Your task to perform on an android device: set the timer Image 0: 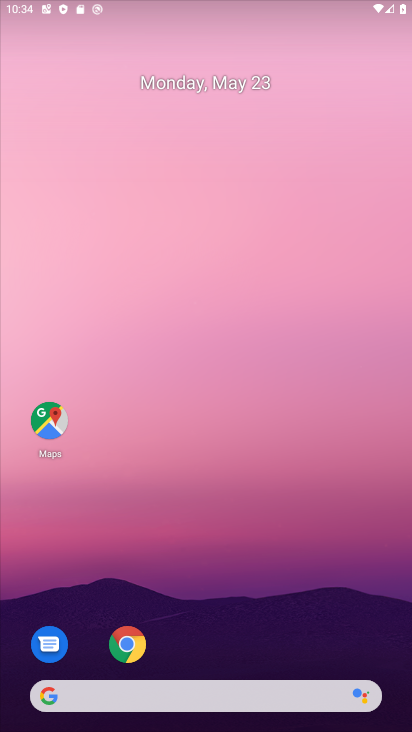
Step 0: press home button
Your task to perform on an android device: set the timer Image 1: 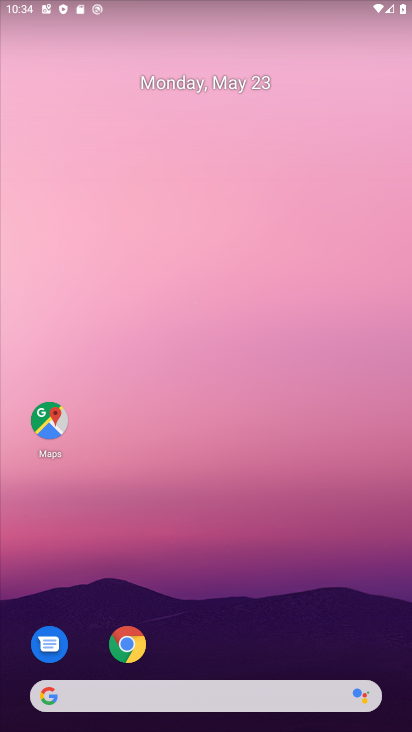
Step 1: drag from (292, 663) to (205, 13)
Your task to perform on an android device: set the timer Image 2: 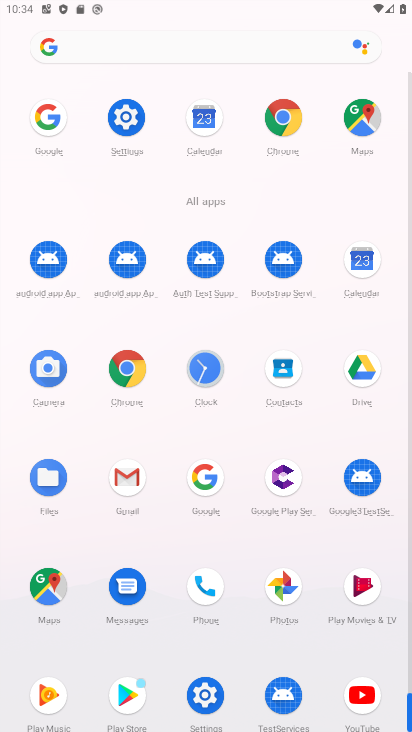
Step 2: click (127, 482)
Your task to perform on an android device: set the timer Image 3: 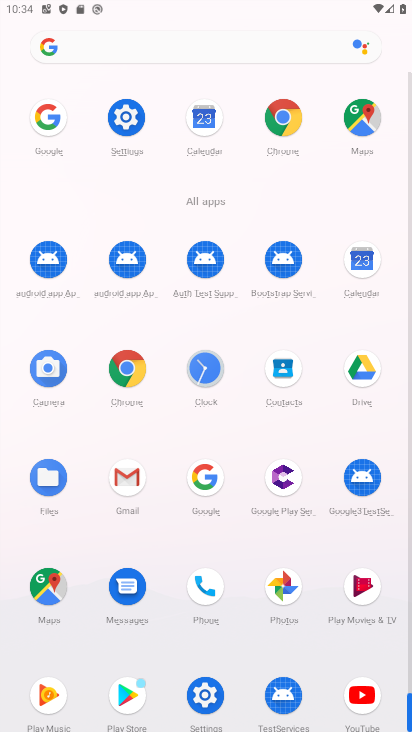
Step 3: click (122, 478)
Your task to perform on an android device: set the timer Image 4: 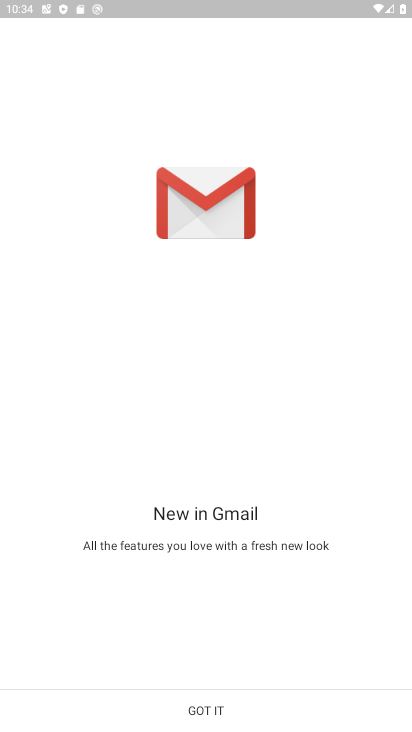
Step 4: click (243, 709)
Your task to perform on an android device: set the timer Image 5: 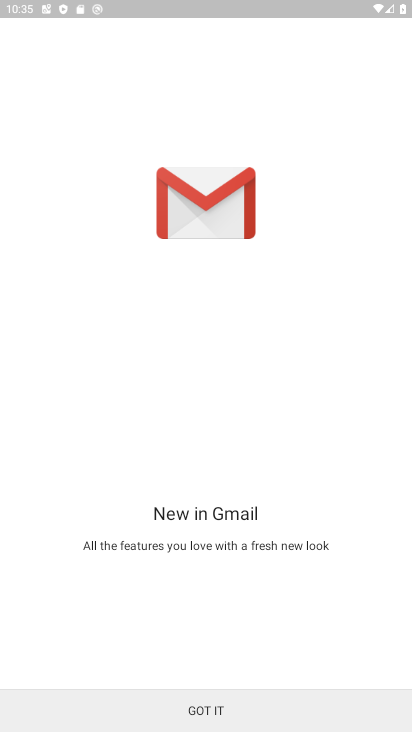
Step 5: click (251, 708)
Your task to perform on an android device: set the timer Image 6: 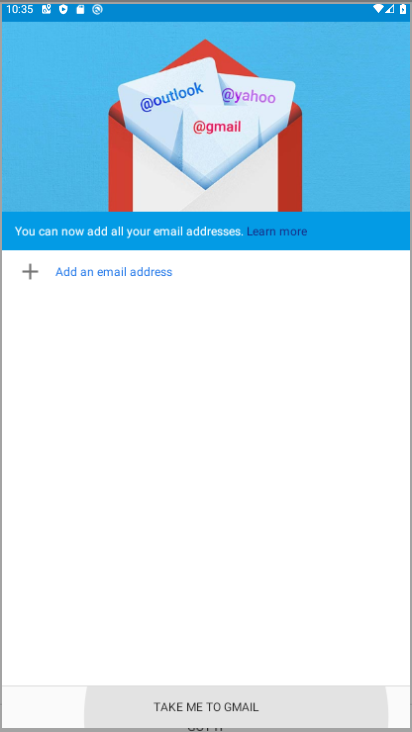
Step 6: click (252, 708)
Your task to perform on an android device: set the timer Image 7: 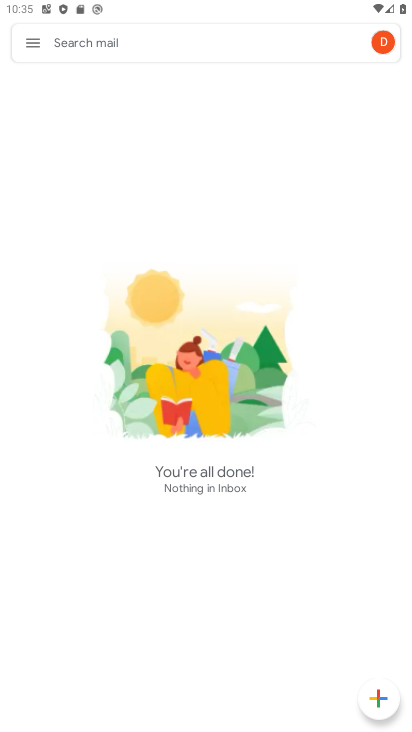
Step 7: click (32, 43)
Your task to perform on an android device: set the timer Image 8: 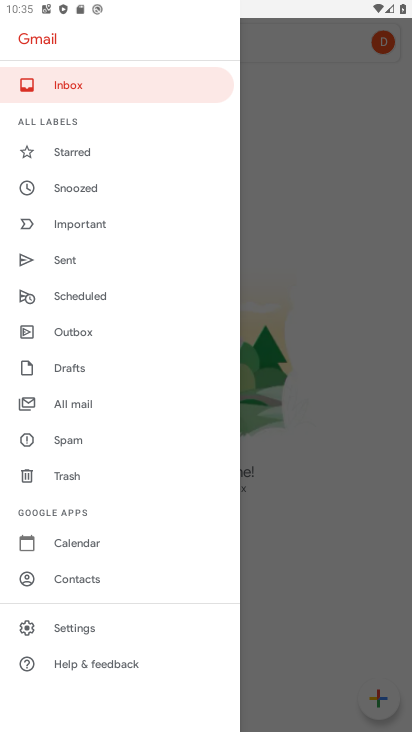
Step 8: click (76, 405)
Your task to perform on an android device: set the timer Image 9: 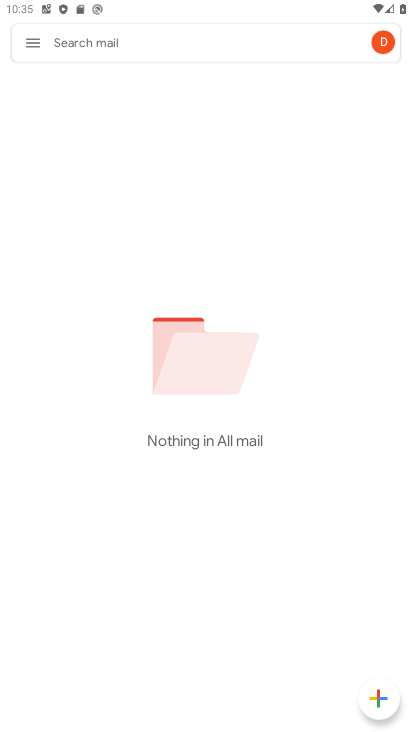
Step 9: task complete